Your task to perform on an android device: Go to settings Image 0: 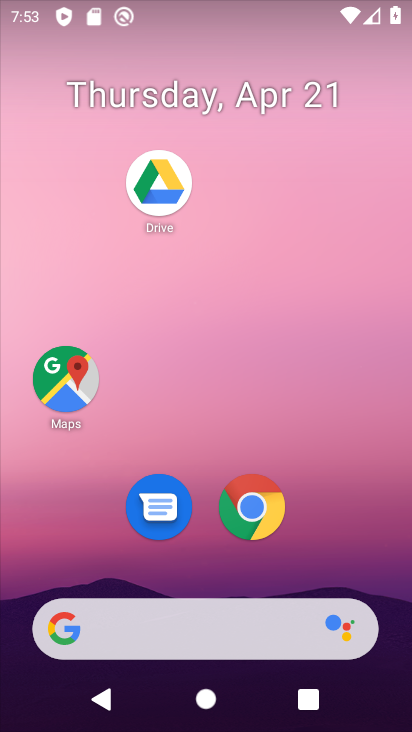
Step 0: drag from (370, 544) to (360, 53)
Your task to perform on an android device: Go to settings Image 1: 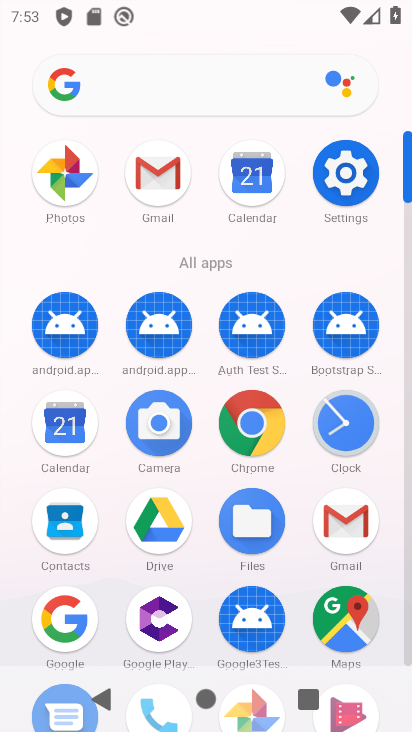
Step 1: click (344, 190)
Your task to perform on an android device: Go to settings Image 2: 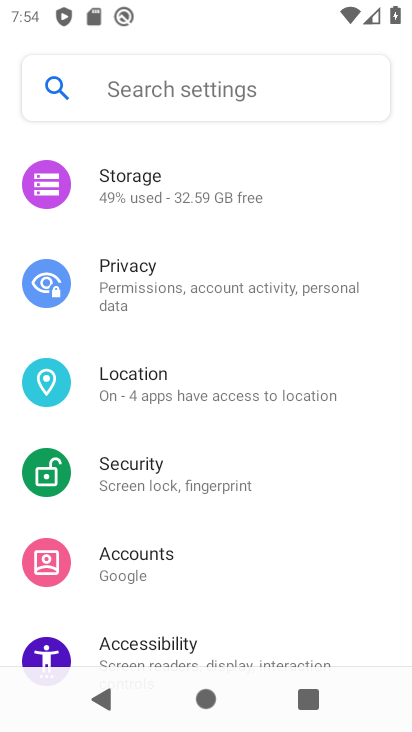
Step 2: task complete